Your task to perform on an android device: Open Wikipedia Image 0: 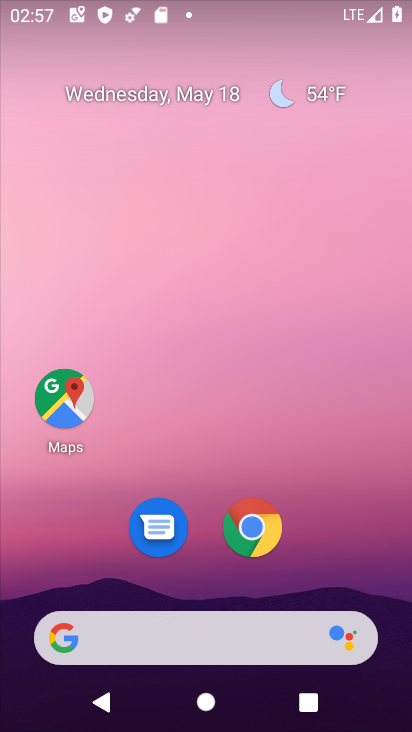
Step 0: drag from (197, 609) to (307, 33)
Your task to perform on an android device: Open Wikipedia Image 1: 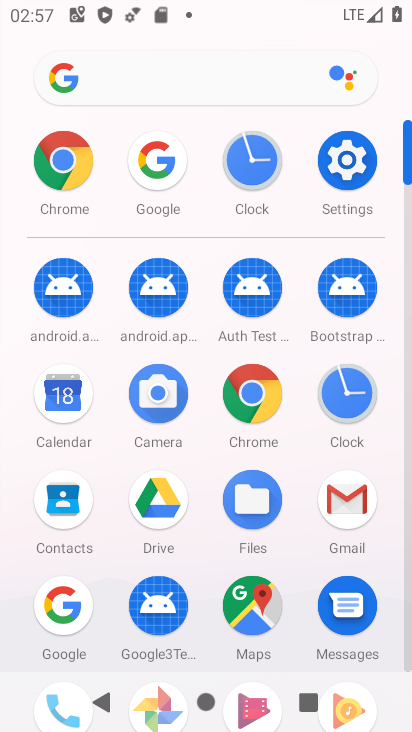
Step 1: click (247, 404)
Your task to perform on an android device: Open Wikipedia Image 2: 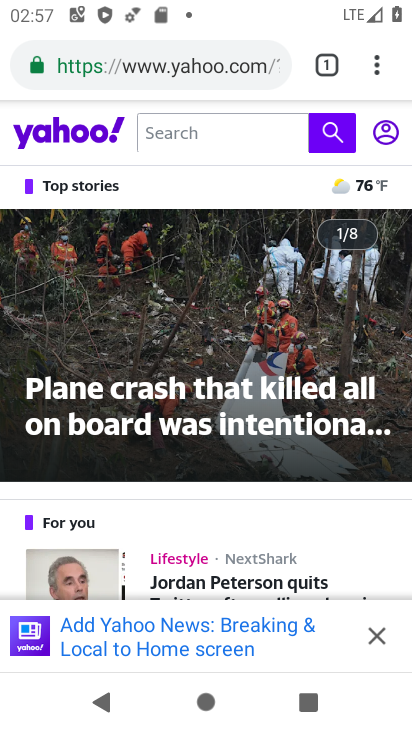
Step 2: click (328, 63)
Your task to perform on an android device: Open Wikipedia Image 3: 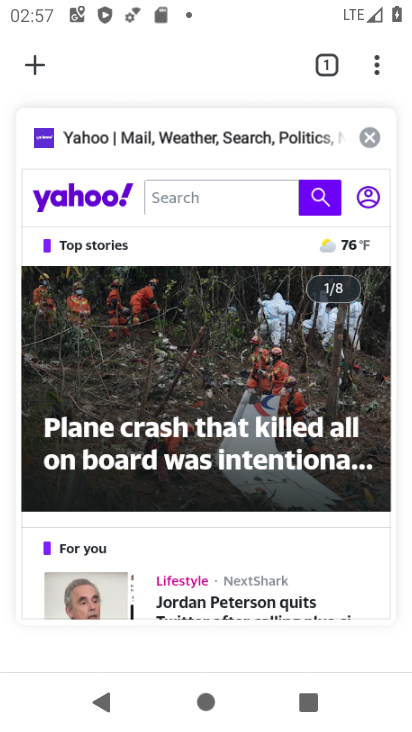
Step 3: click (43, 75)
Your task to perform on an android device: Open Wikipedia Image 4: 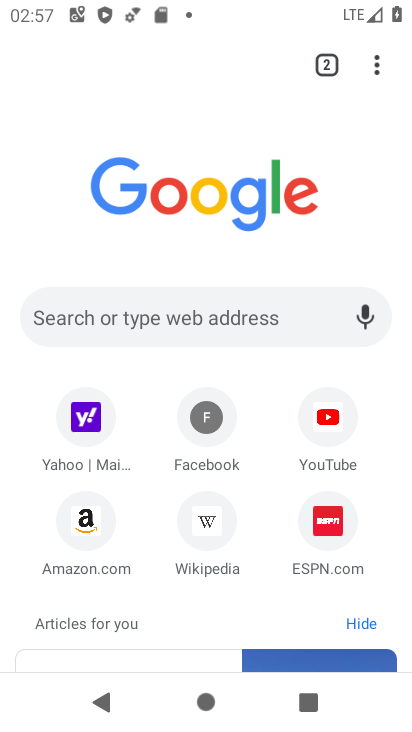
Step 4: click (217, 514)
Your task to perform on an android device: Open Wikipedia Image 5: 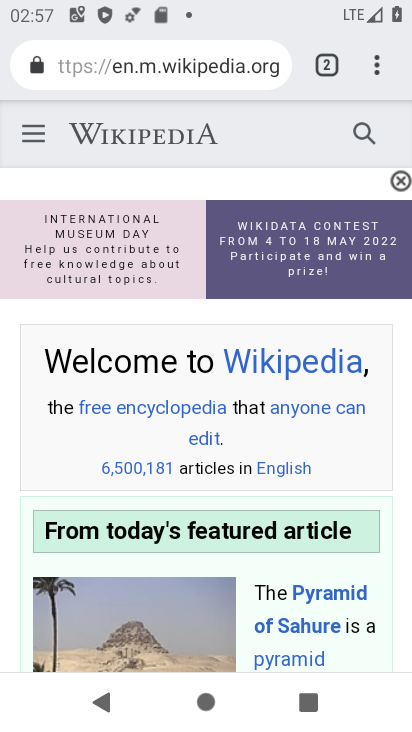
Step 5: task complete